Your task to perform on an android device: What's a good restaurant in Sacramento? Image 0: 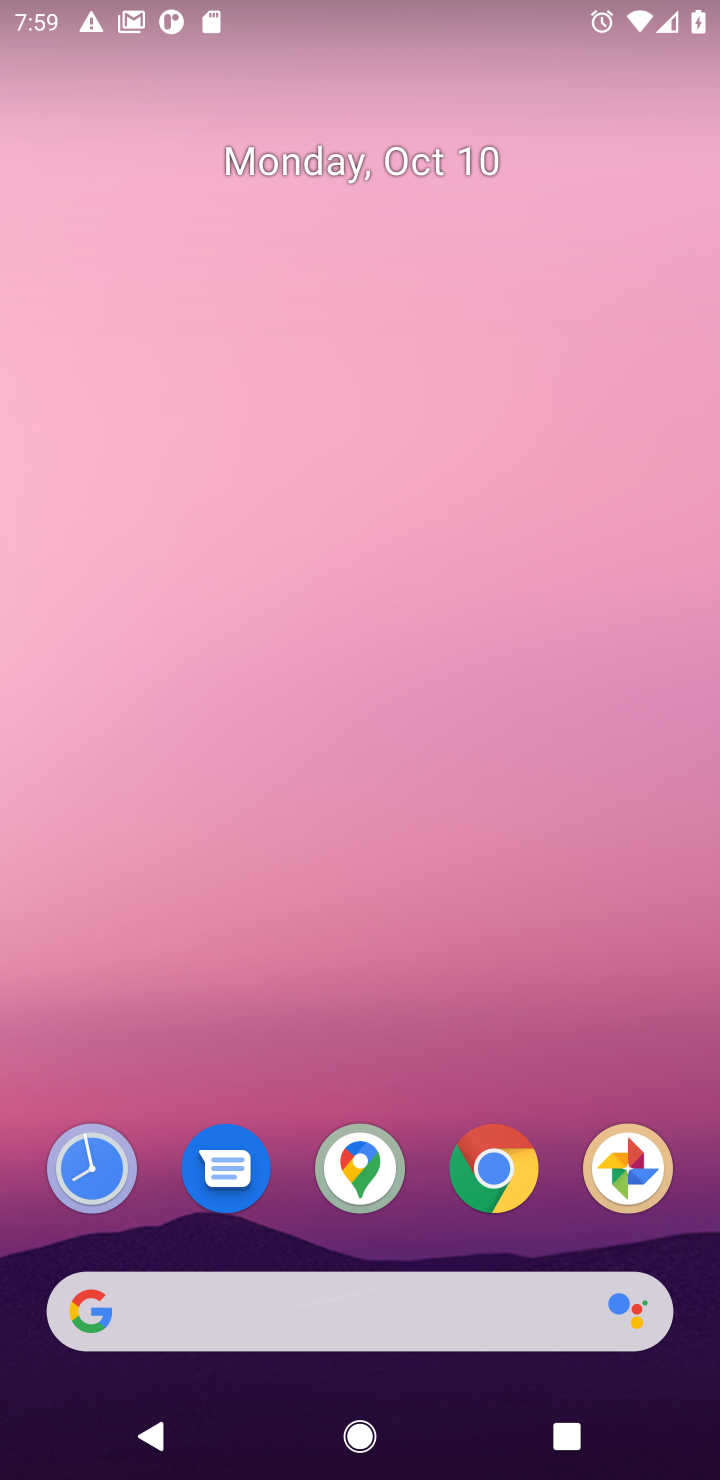
Step 0: click (491, 1170)
Your task to perform on an android device: What's a good restaurant in Sacramento? Image 1: 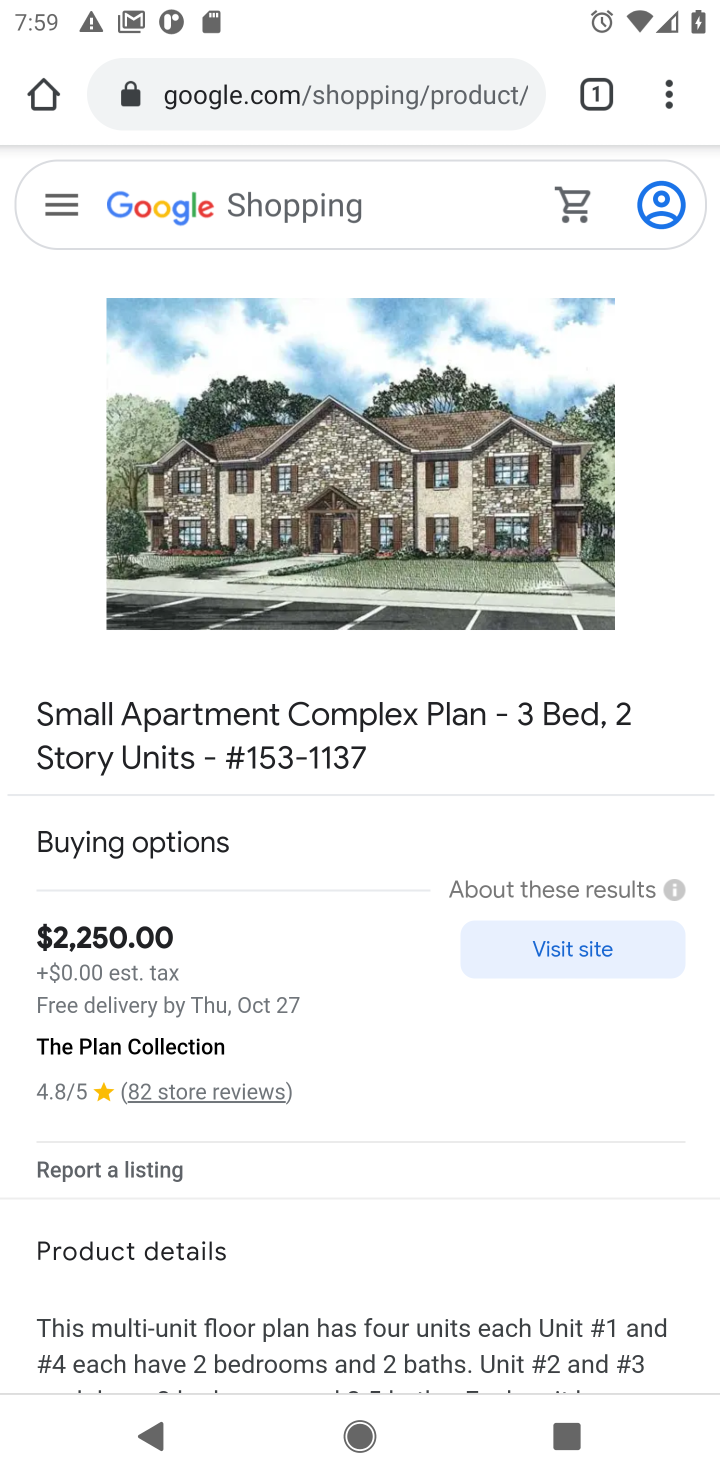
Step 1: click (315, 110)
Your task to perform on an android device: What's a good restaurant in Sacramento? Image 2: 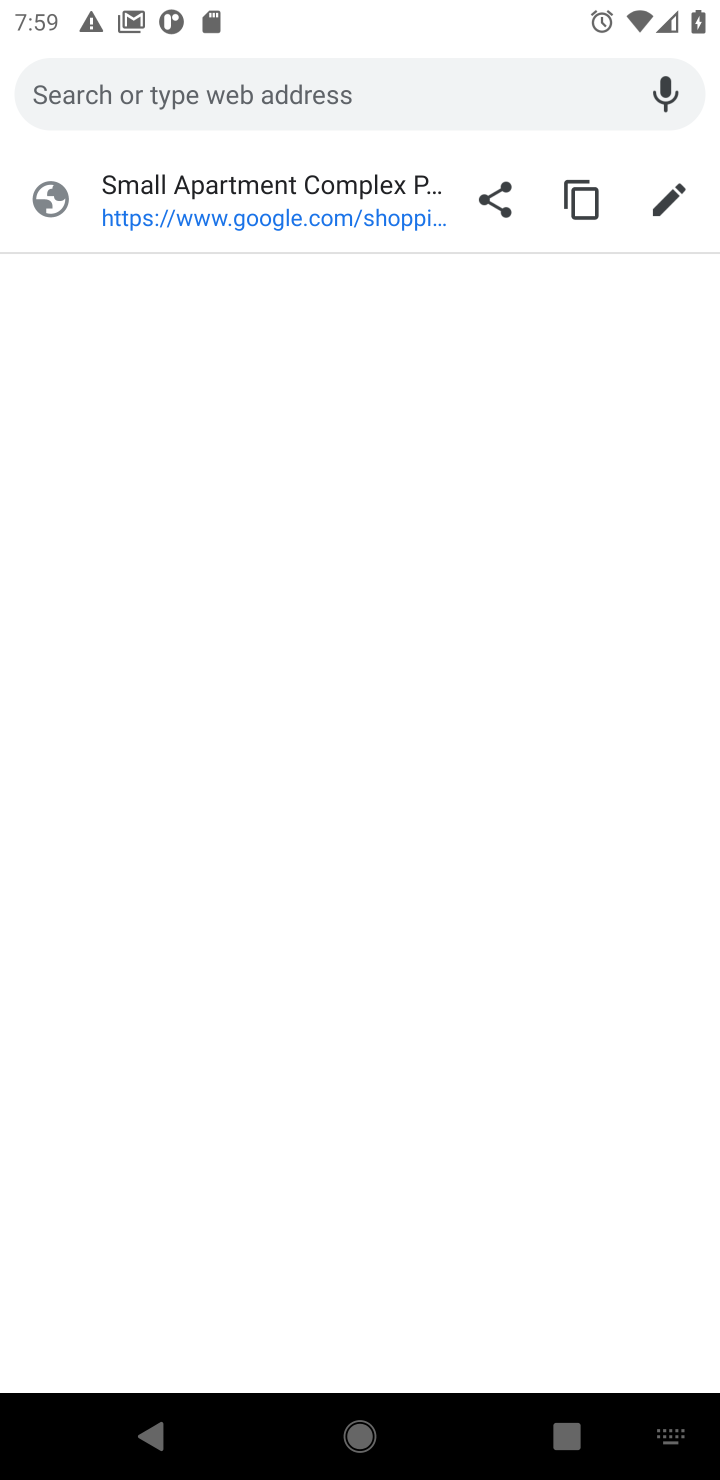
Step 2: type "good restaurant in sacramento"
Your task to perform on an android device: What's a good restaurant in Sacramento? Image 3: 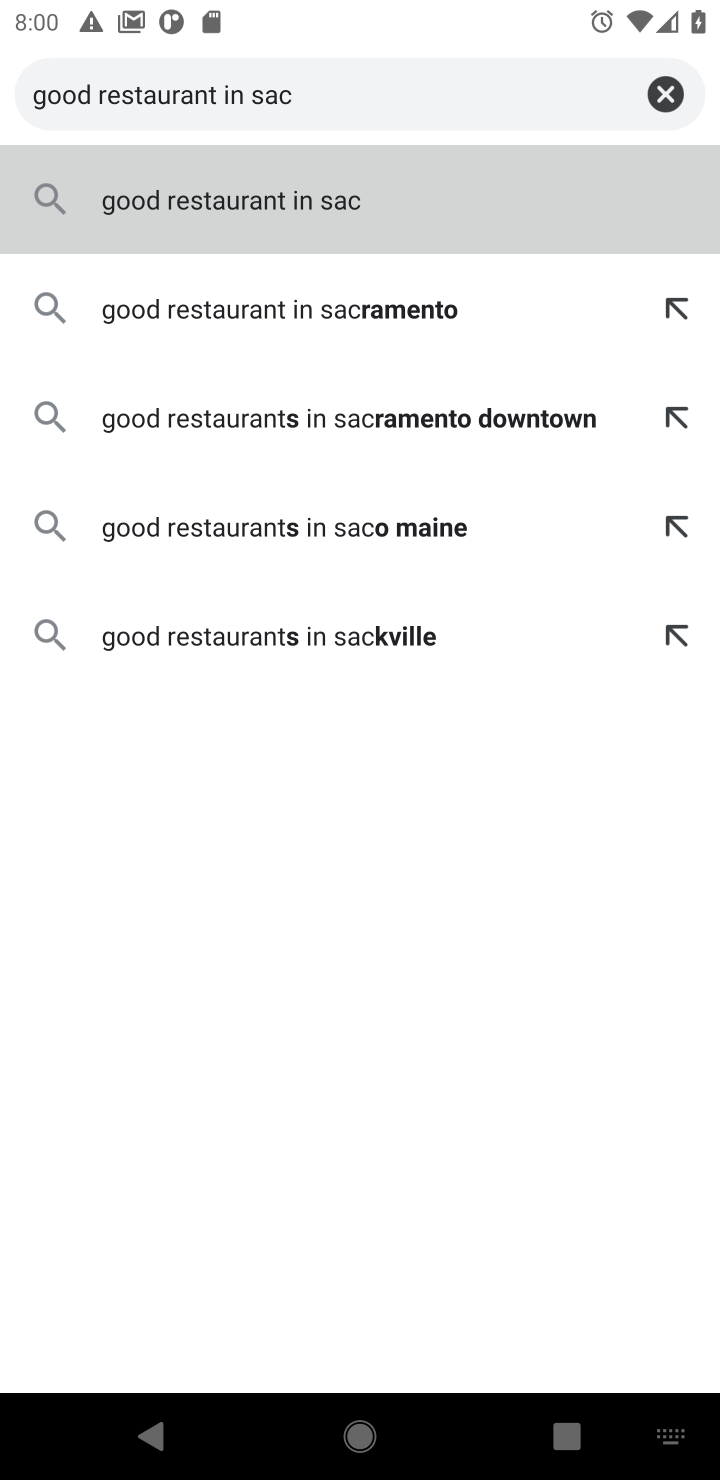
Step 3: click (291, 313)
Your task to perform on an android device: What's a good restaurant in Sacramento? Image 4: 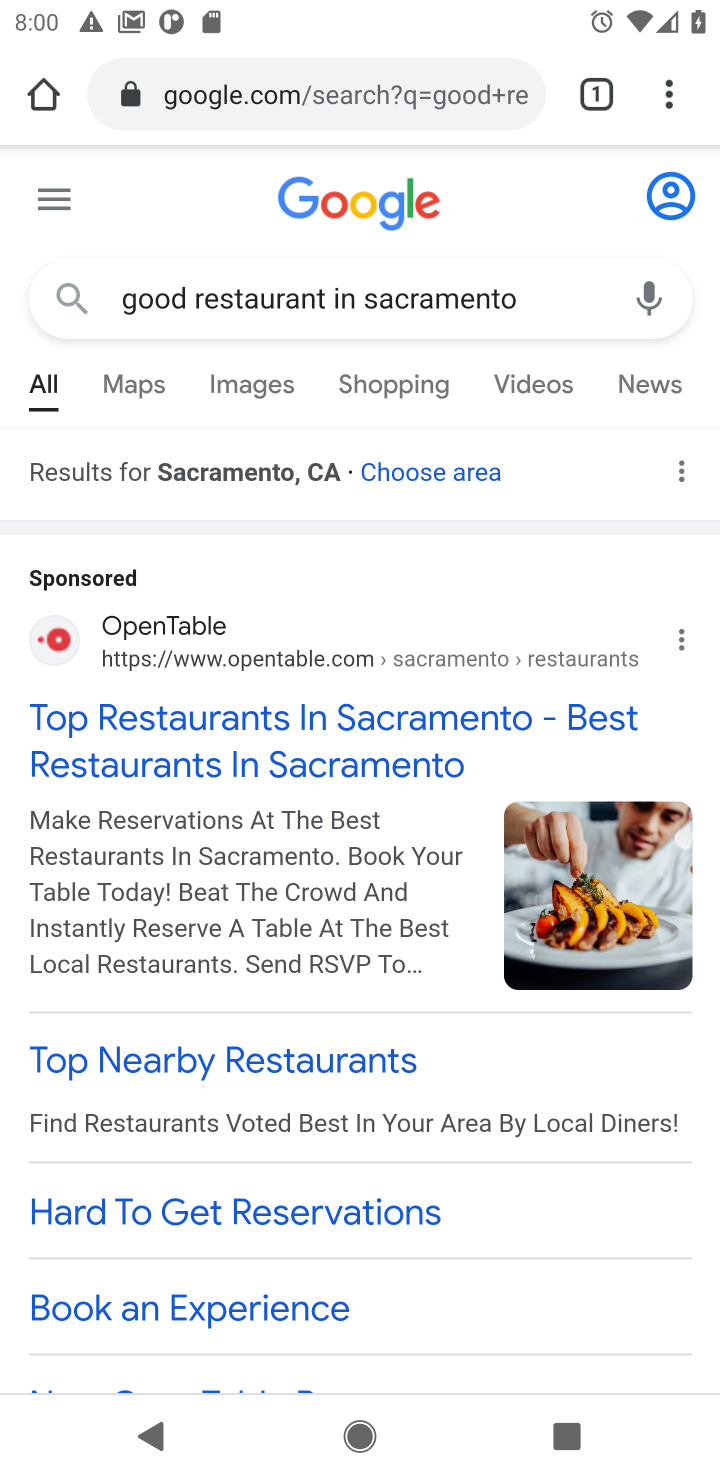
Step 4: click (206, 760)
Your task to perform on an android device: What's a good restaurant in Sacramento? Image 5: 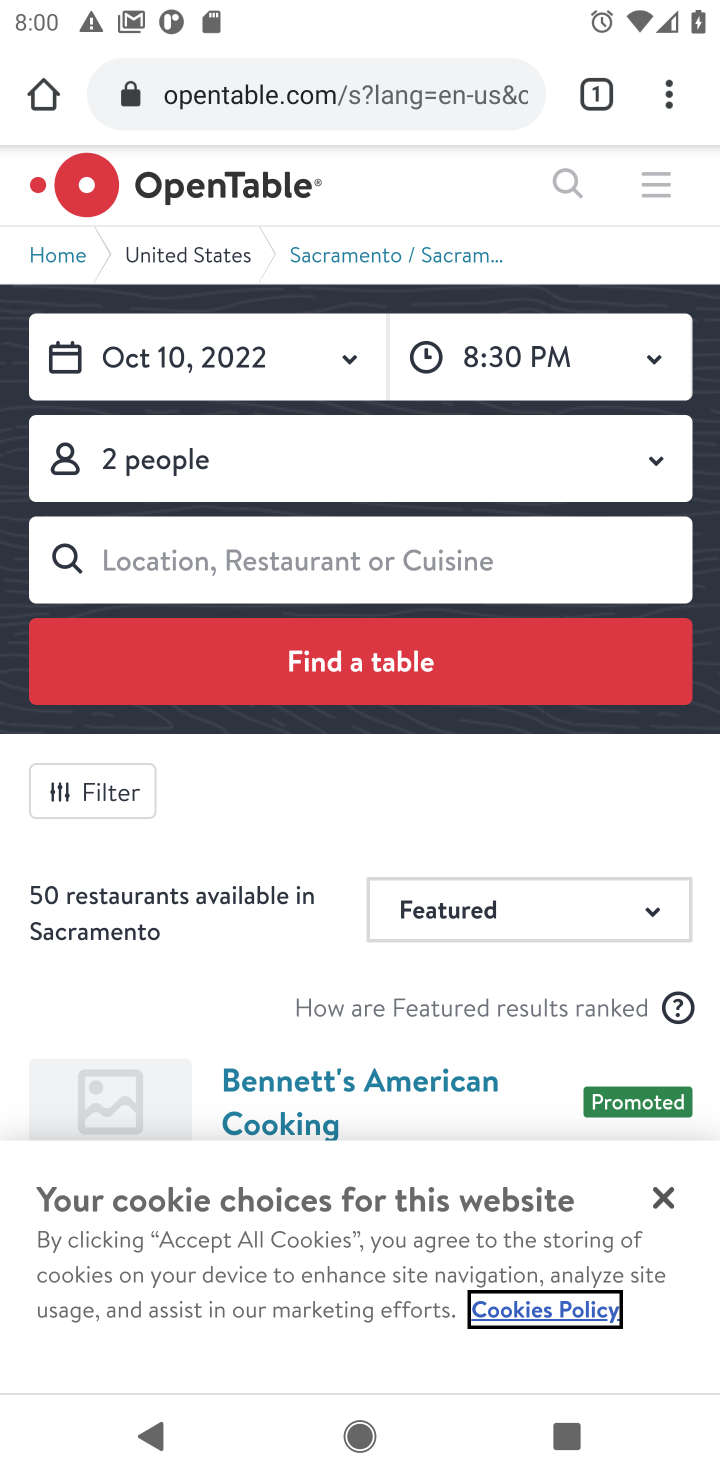
Step 5: task complete